Your task to perform on an android device: find photos in the google photos app Image 0: 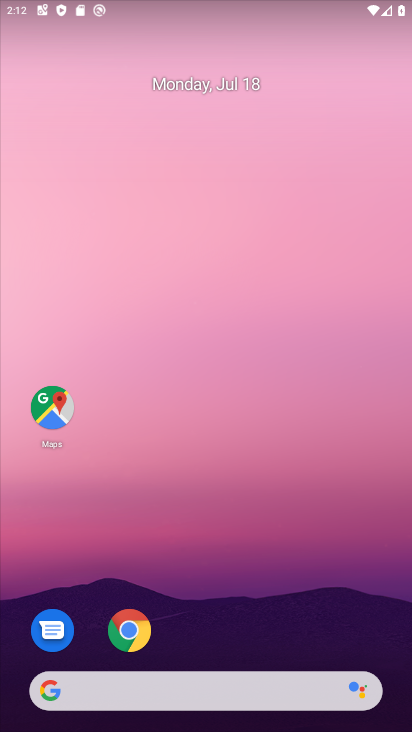
Step 0: drag from (373, 628) to (353, 163)
Your task to perform on an android device: find photos in the google photos app Image 1: 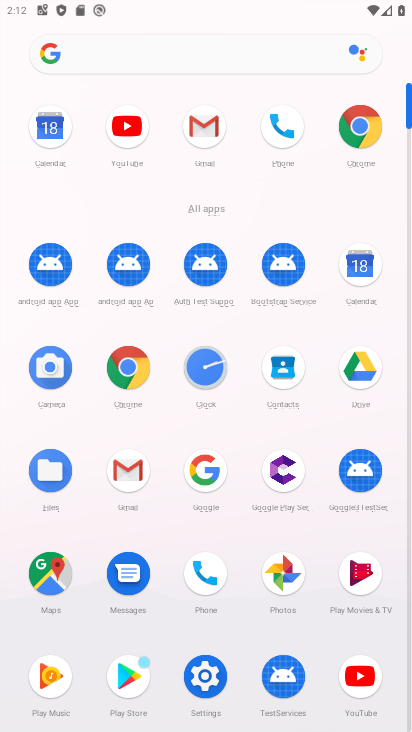
Step 1: click (280, 576)
Your task to perform on an android device: find photos in the google photos app Image 2: 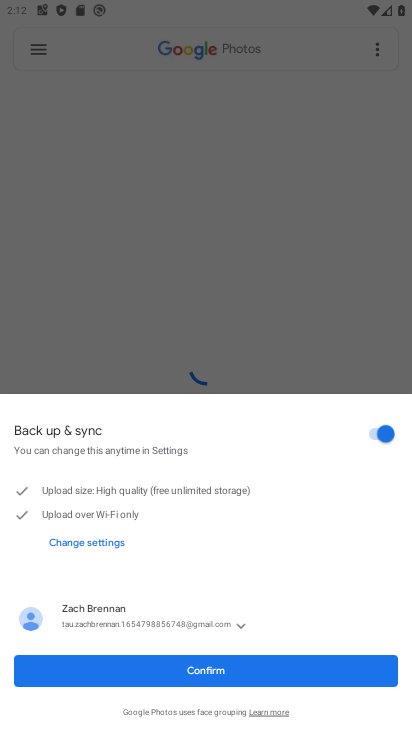
Step 2: click (194, 668)
Your task to perform on an android device: find photos in the google photos app Image 3: 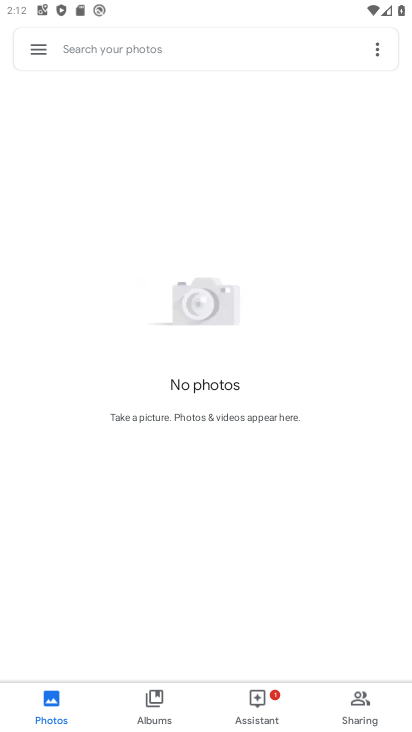
Step 3: task complete